Your task to perform on an android device: turn on bluetooth scan Image 0: 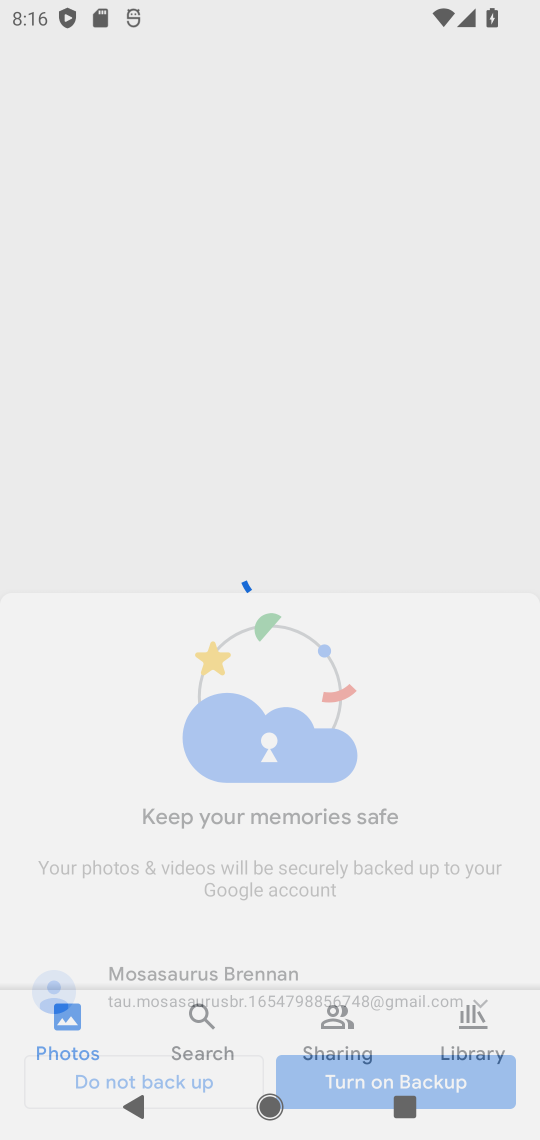
Step 0: press home button
Your task to perform on an android device: turn on bluetooth scan Image 1: 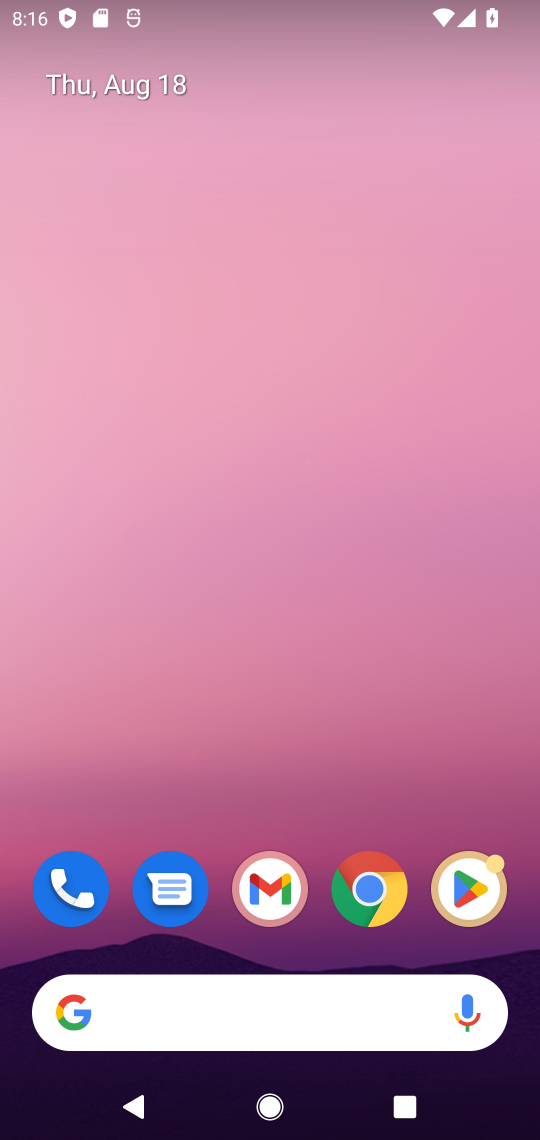
Step 1: drag from (315, 931) to (423, 153)
Your task to perform on an android device: turn on bluetooth scan Image 2: 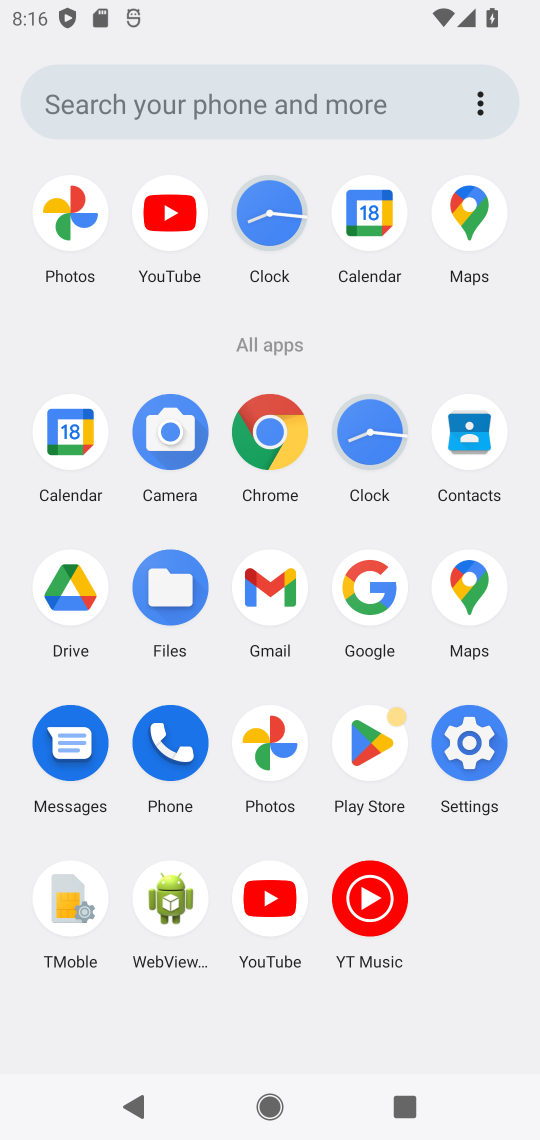
Step 2: click (474, 750)
Your task to perform on an android device: turn on bluetooth scan Image 3: 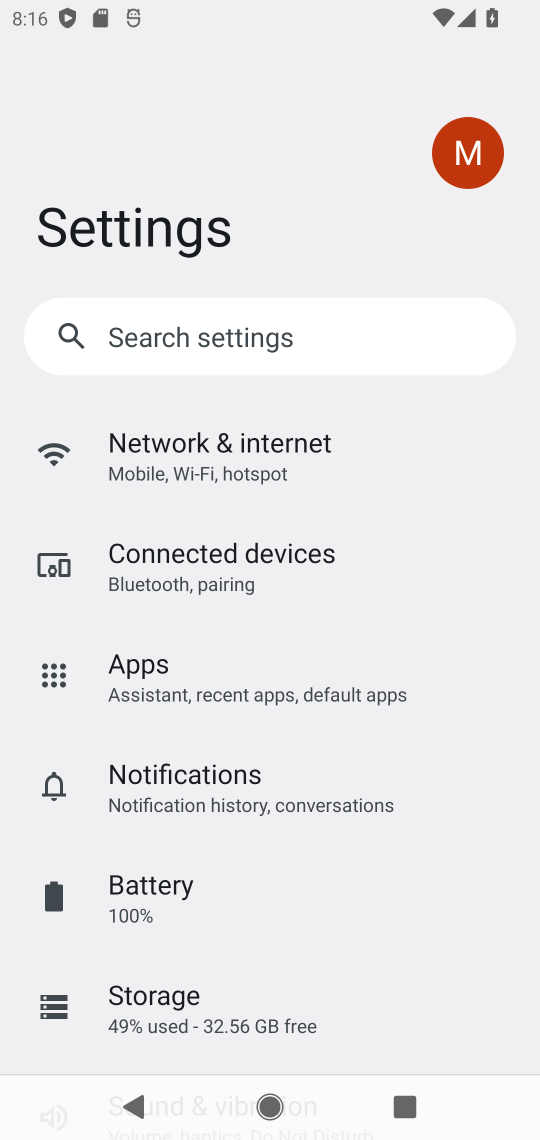
Step 3: drag from (364, 930) to (273, 249)
Your task to perform on an android device: turn on bluetooth scan Image 4: 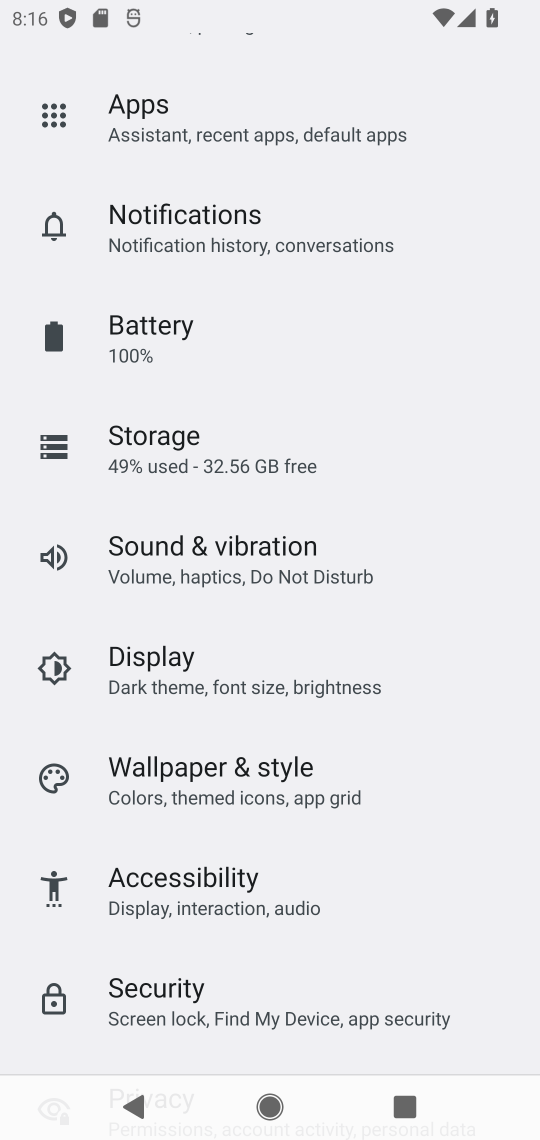
Step 4: drag from (458, 409) to (456, 152)
Your task to perform on an android device: turn on bluetooth scan Image 5: 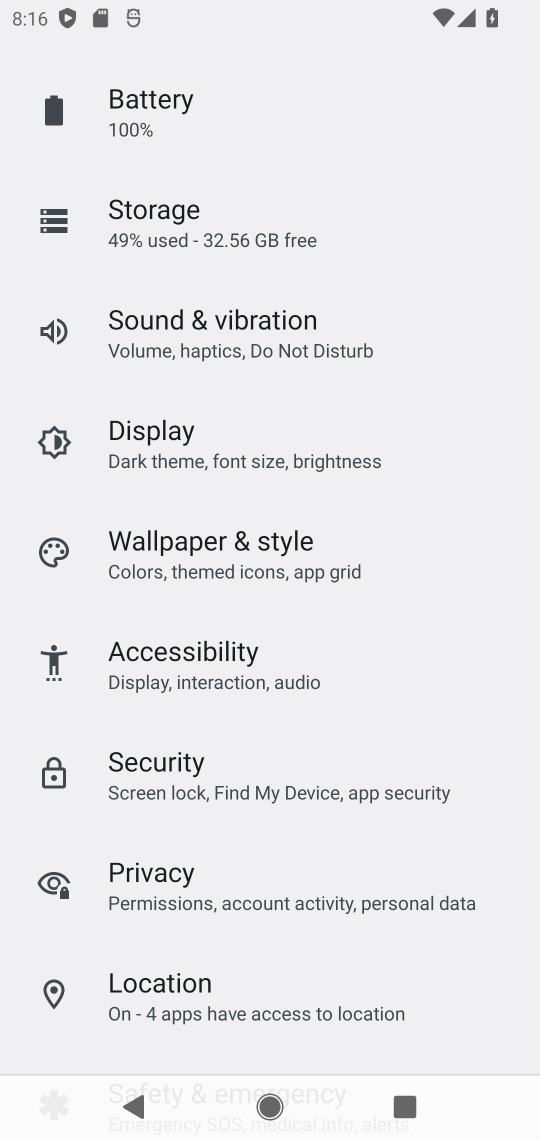
Step 5: click (195, 989)
Your task to perform on an android device: turn on bluetooth scan Image 6: 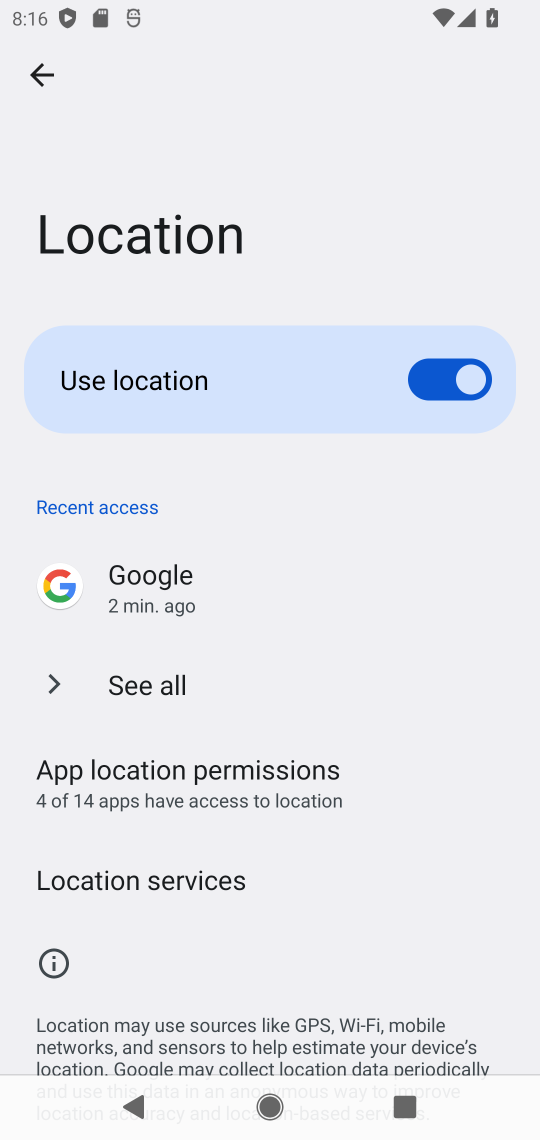
Step 6: click (117, 878)
Your task to perform on an android device: turn on bluetooth scan Image 7: 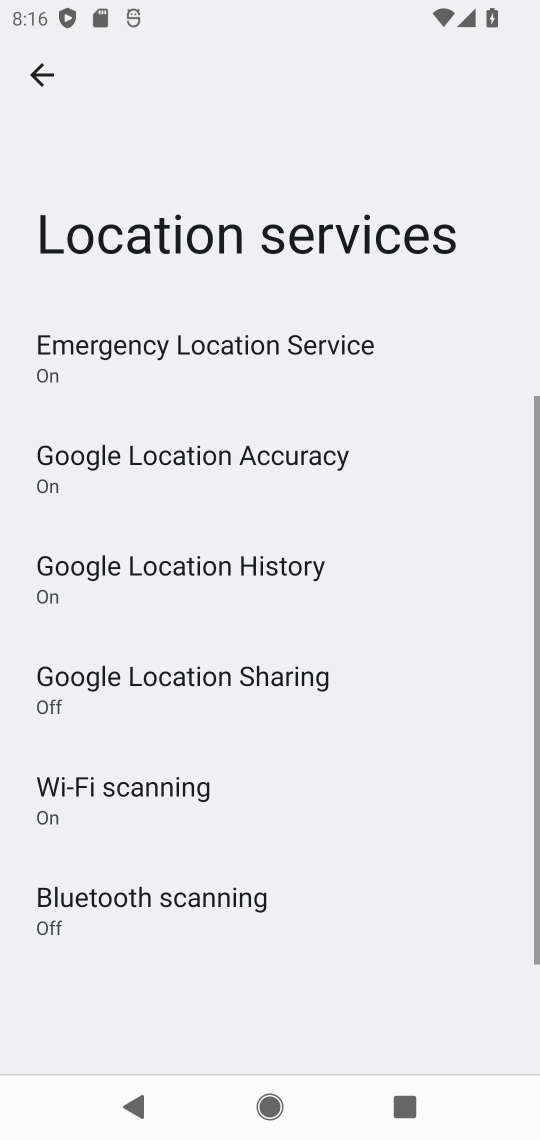
Step 7: click (186, 898)
Your task to perform on an android device: turn on bluetooth scan Image 8: 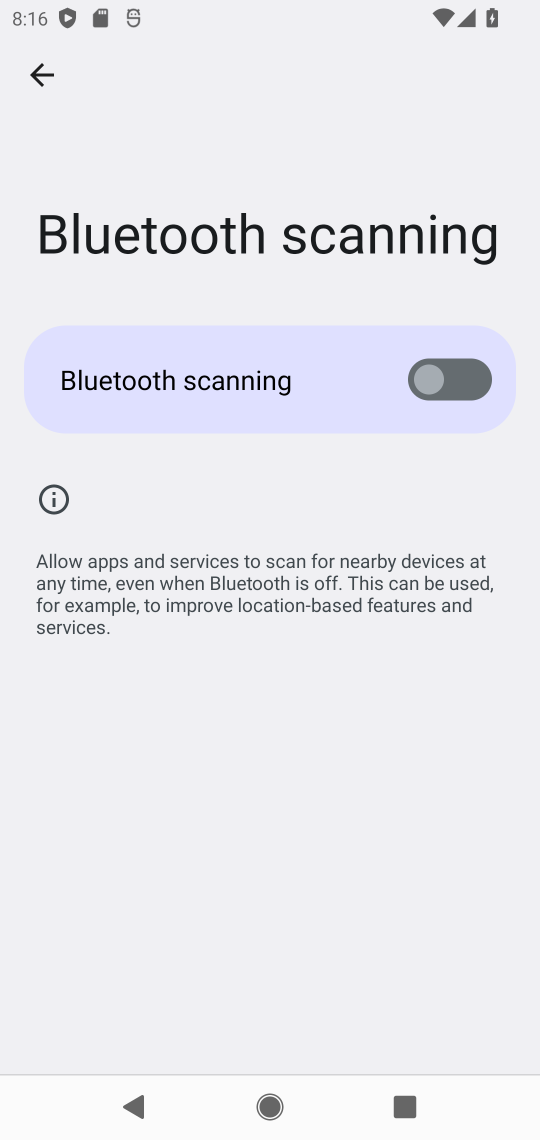
Step 8: click (417, 379)
Your task to perform on an android device: turn on bluetooth scan Image 9: 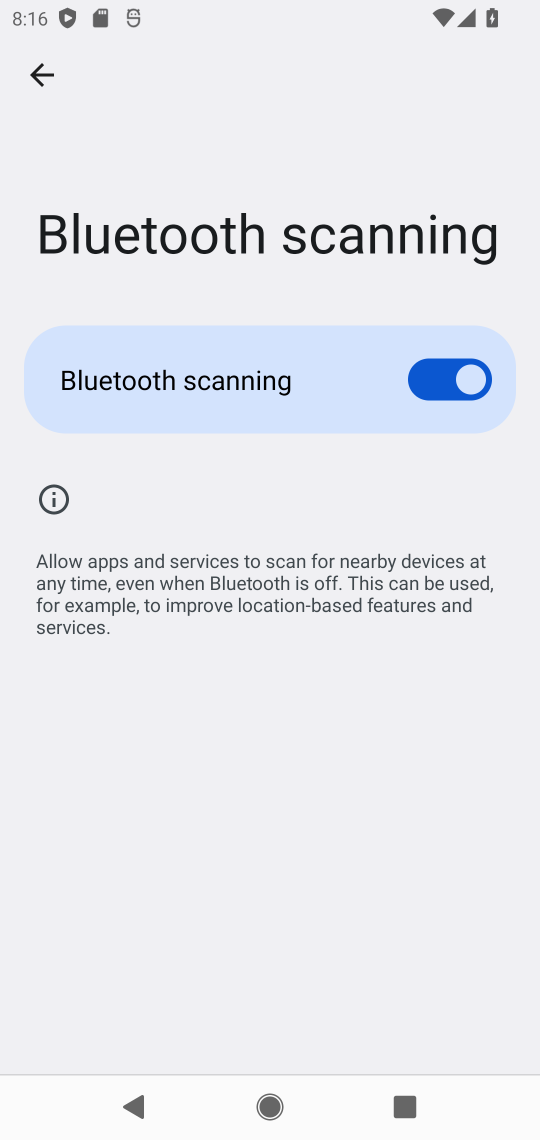
Step 9: task complete